Your task to perform on an android device: Open maps Image 0: 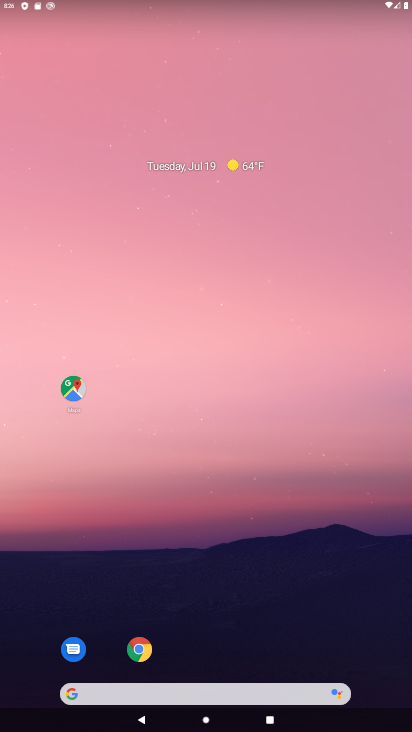
Step 0: click (81, 392)
Your task to perform on an android device: Open maps Image 1: 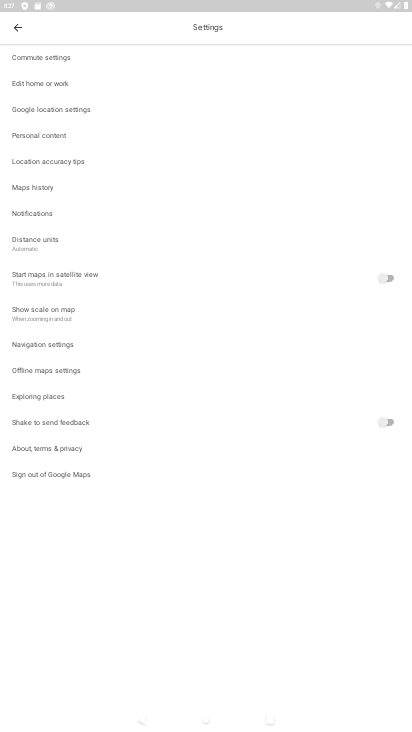
Step 1: click (16, 23)
Your task to perform on an android device: Open maps Image 2: 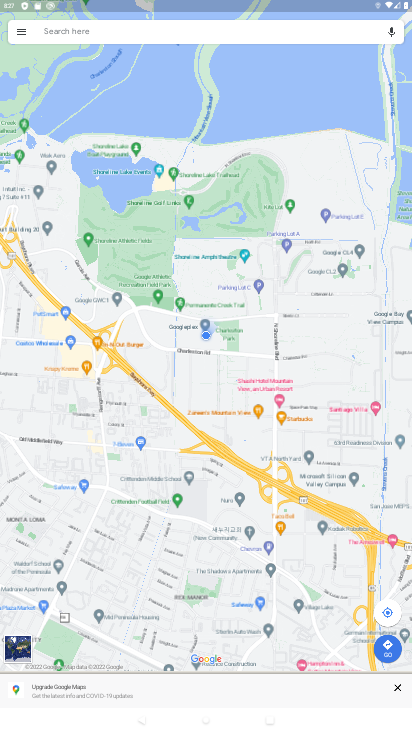
Step 2: task complete